Your task to perform on an android device: Open wifi settings Image 0: 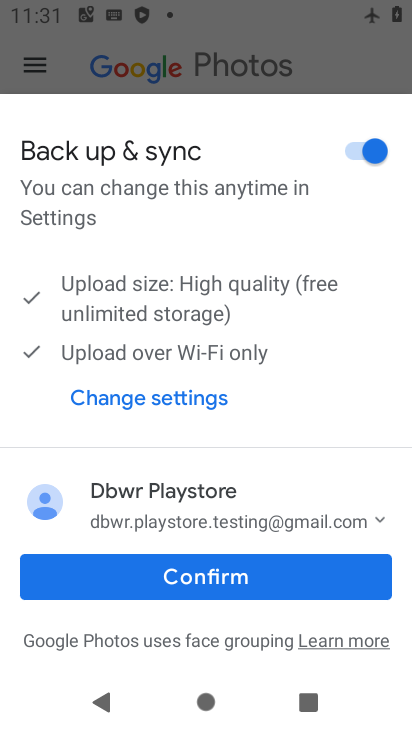
Step 0: press home button
Your task to perform on an android device: Open wifi settings Image 1: 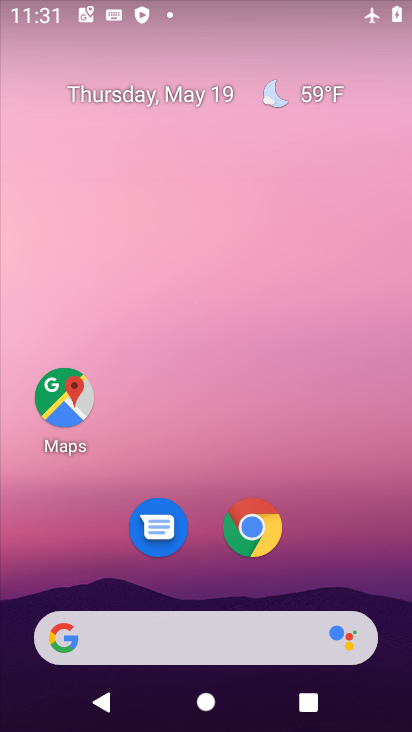
Step 1: drag from (327, 562) to (237, 90)
Your task to perform on an android device: Open wifi settings Image 2: 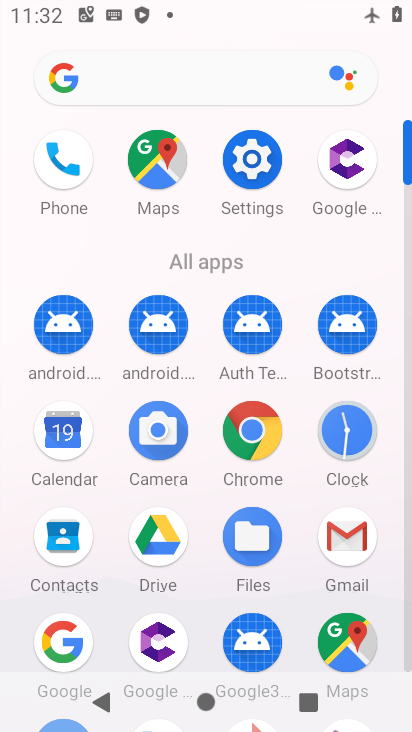
Step 2: click (270, 154)
Your task to perform on an android device: Open wifi settings Image 3: 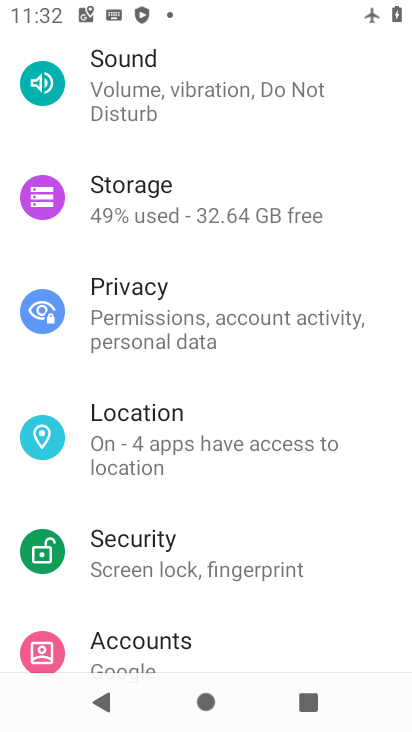
Step 3: drag from (220, 96) to (313, 728)
Your task to perform on an android device: Open wifi settings Image 4: 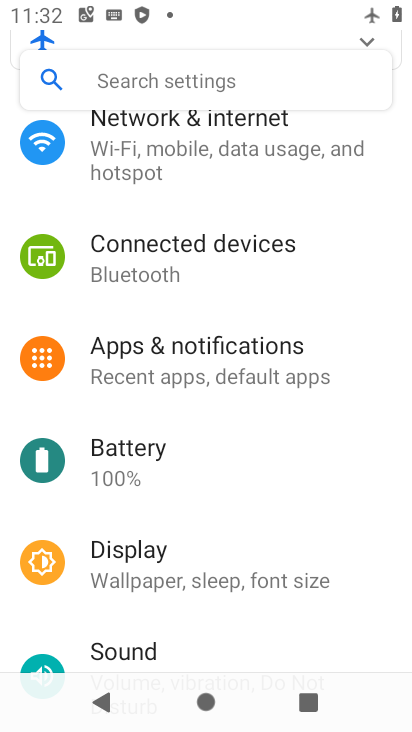
Step 4: click (194, 156)
Your task to perform on an android device: Open wifi settings Image 5: 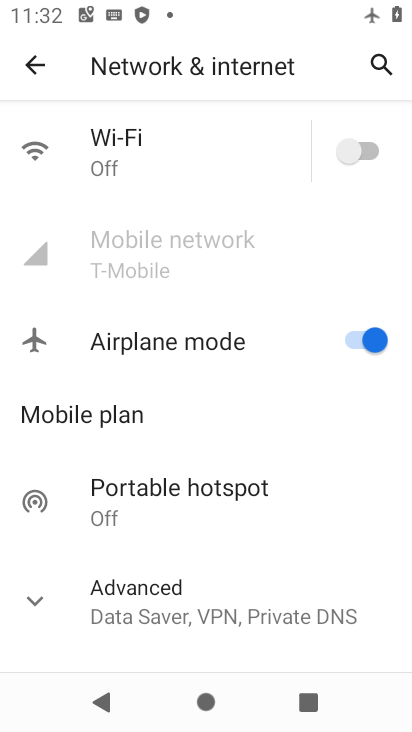
Step 5: click (194, 156)
Your task to perform on an android device: Open wifi settings Image 6: 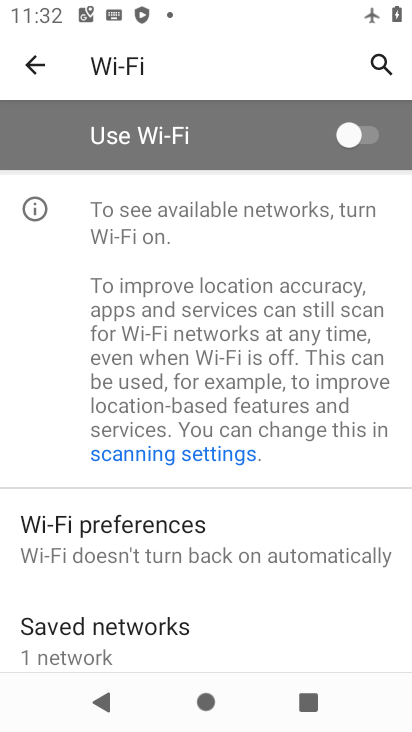
Step 6: task complete